Your task to perform on an android device: add a label to a message in the gmail app Image 0: 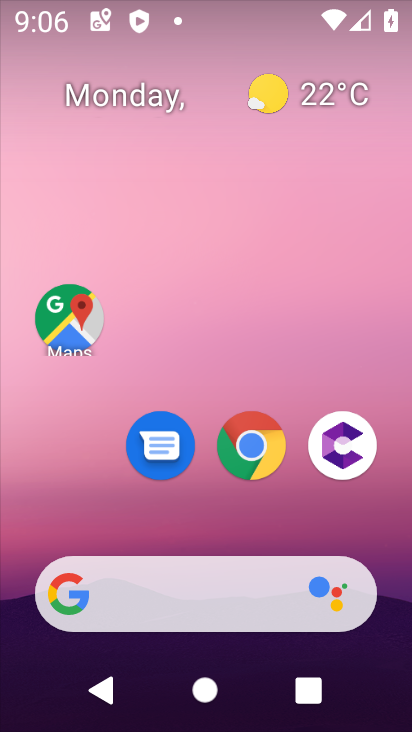
Step 0: press home button
Your task to perform on an android device: add a label to a message in the gmail app Image 1: 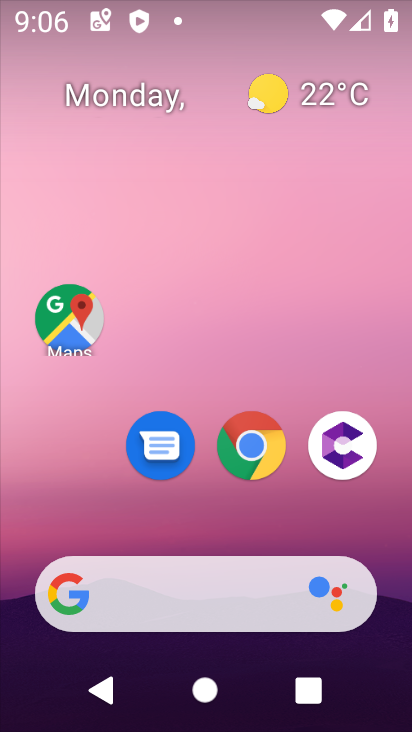
Step 1: drag from (288, 526) to (383, 21)
Your task to perform on an android device: add a label to a message in the gmail app Image 2: 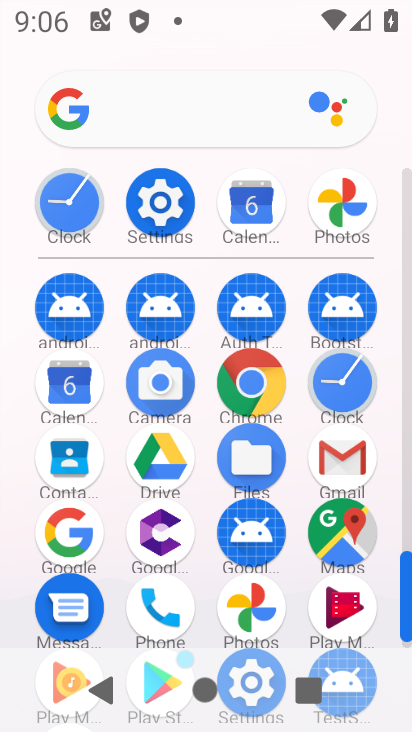
Step 2: click (339, 457)
Your task to perform on an android device: add a label to a message in the gmail app Image 3: 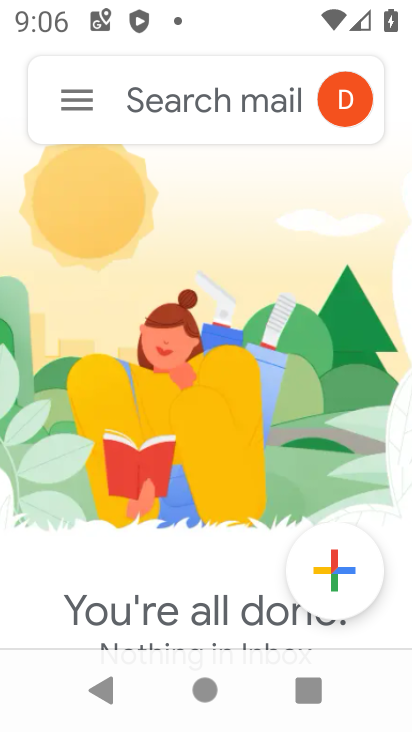
Step 3: click (63, 115)
Your task to perform on an android device: add a label to a message in the gmail app Image 4: 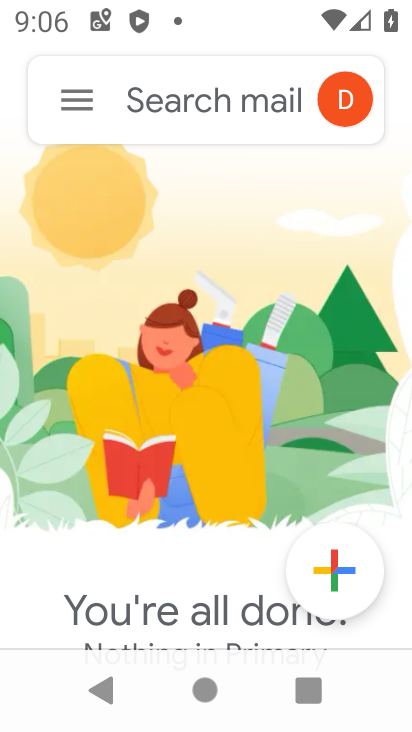
Step 4: click (63, 115)
Your task to perform on an android device: add a label to a message in the gmail app Image 5: 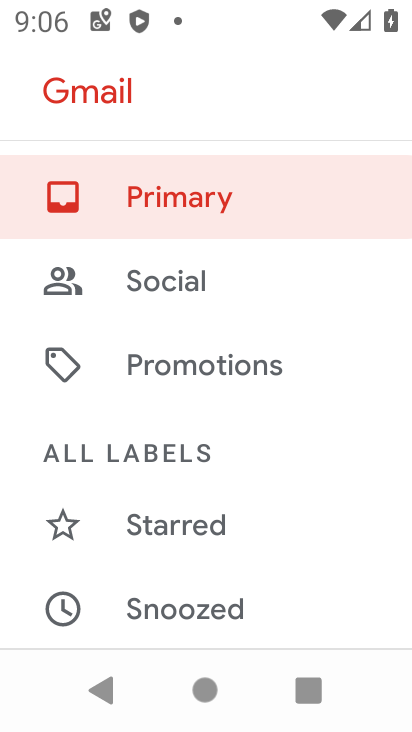
Step 5: drag from (293, 600) to (300, 284)
Your task to perform on an android device: add a label to a message in the gmail app Image 6: 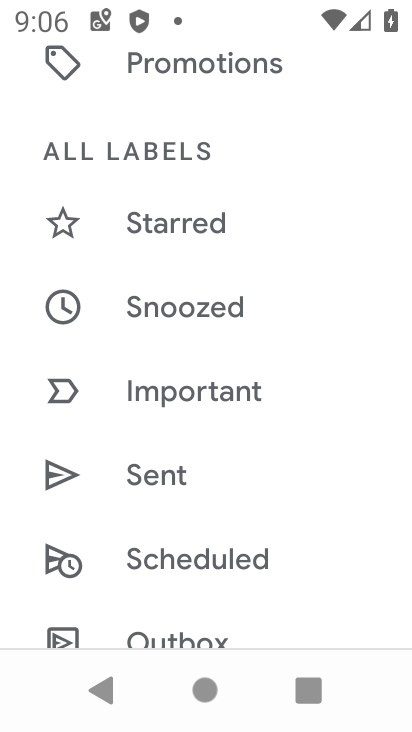
Step 6: drag from (336, 477) to (330, 175)
Your task to perform on an android device: add a label to a message in the gmail app Image 7: 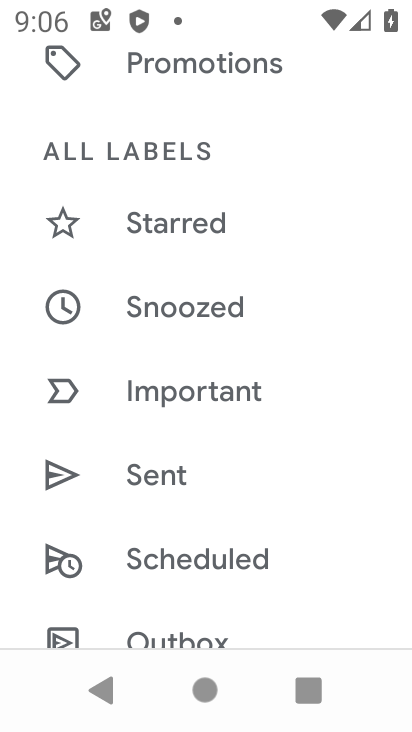
Step 7: drag from (341, 520) to (330, 133)
Your task to perform on an android device: add a label to a message in the gmail app Image 8: 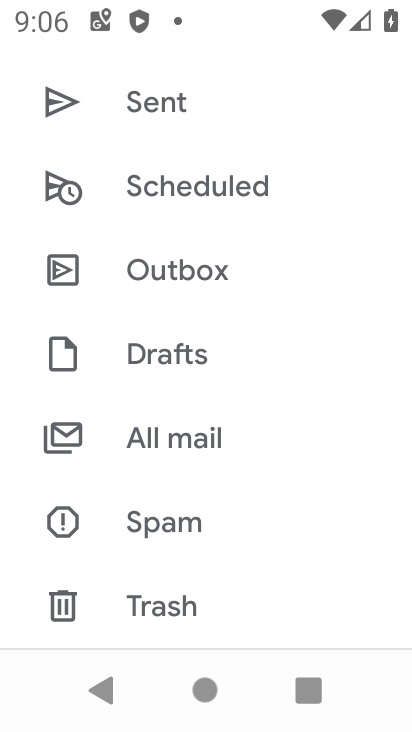
Step 8: click (165, 438)
Your task to perform on an android device: add a label to a message in the gmail app Image 9: 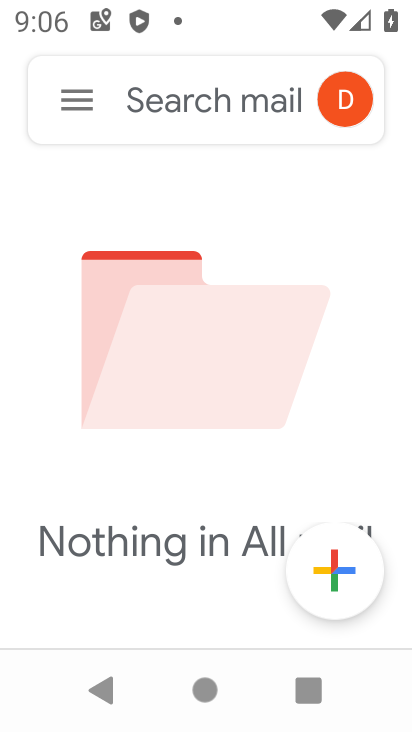
Step 9: task complete